Your task to perform on an android device: Turn off the flashlight Image 0: 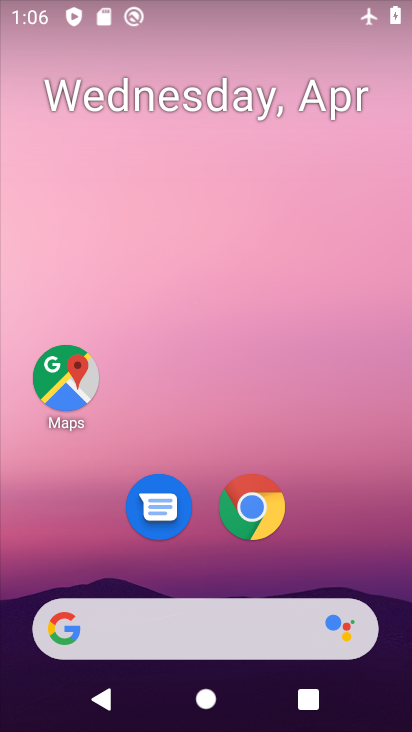
Step 0: drag from (324, 80) to (321, 371)
Your task to perform on an android device: Turn off the flashlight Image 1: 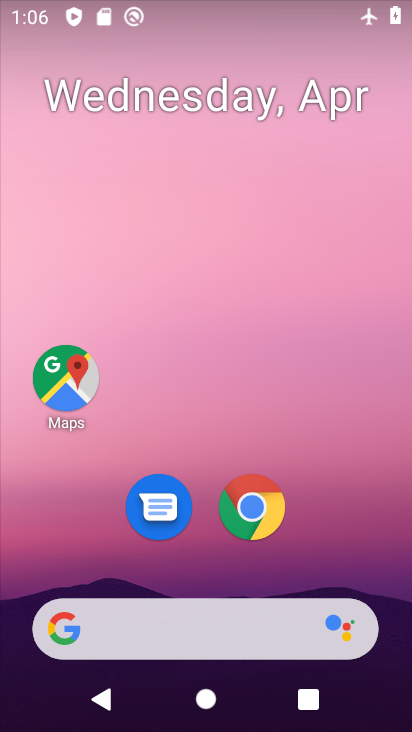
Step 1: task complete